Your task to perform on an android device: Open Amazon Image 0: 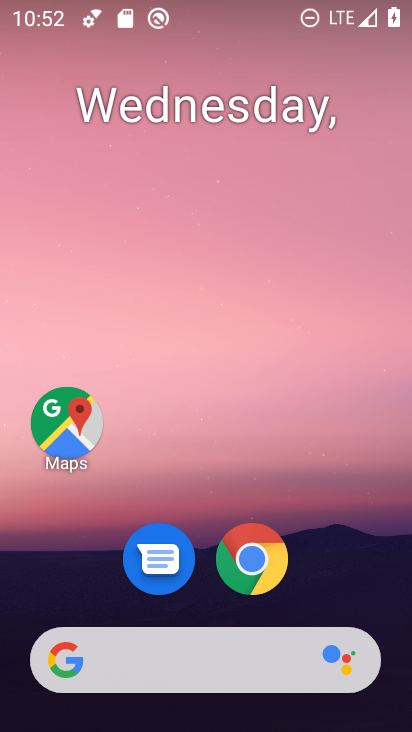
Step 0: drag from (354, 600) to (353, 152)
Your task to perform on an android device: Open Amazon Image 1: 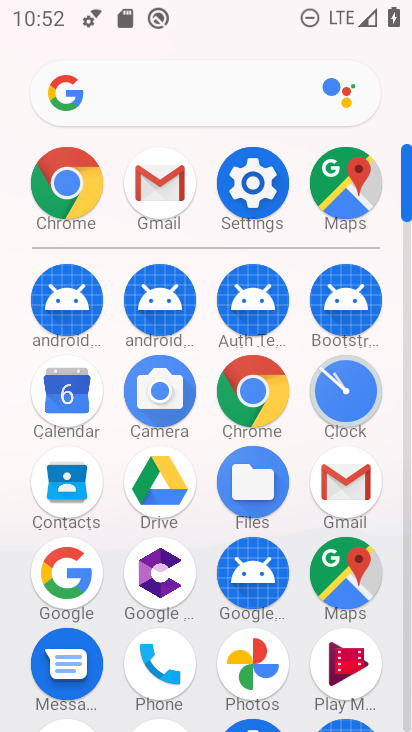
Step 1: click (267, 405)
Your task to perform on an android device: Open Amazon Image 2: 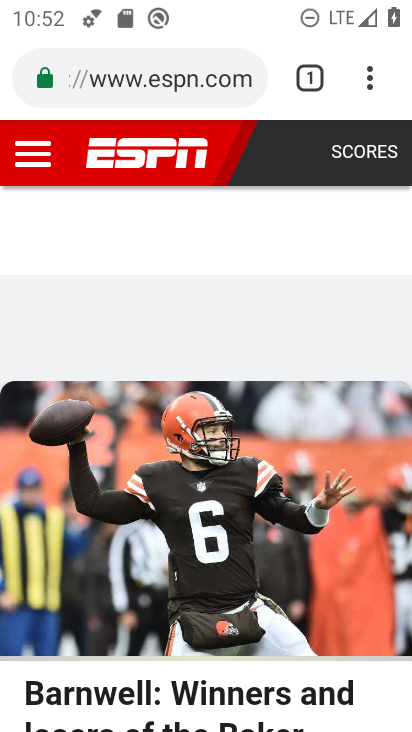
Step 2: click (231, 87)
Your task to perform on an android device: Open Amazon Image 3: 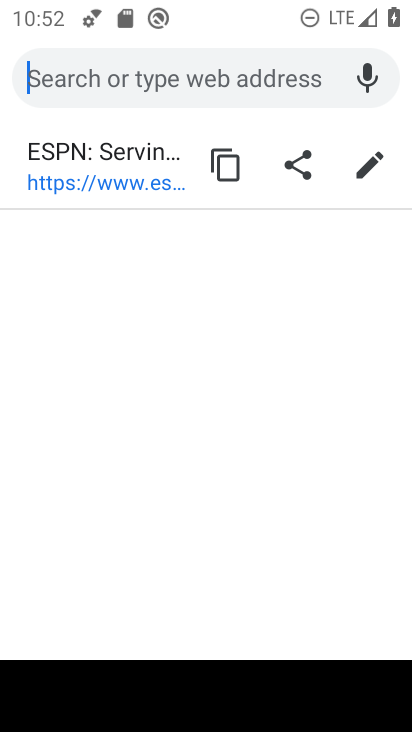
Step 3: type "amazon"
Your task to perform on an android device: Open Amazon Image 4: 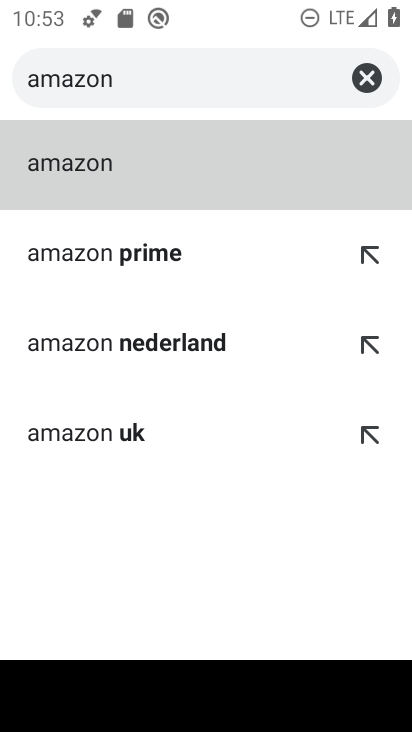
Step 4: click (160, 171)
Your task to perform on an android device: Open Amazon Image 5: 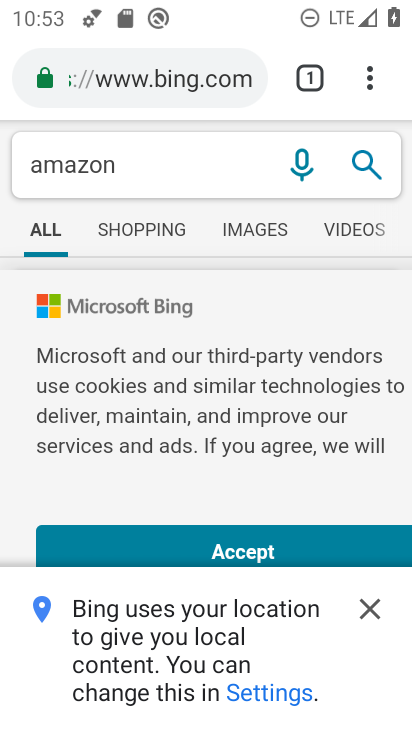
Step 5: task complete